Your task to perform on an android device: check out phone information Image 0: 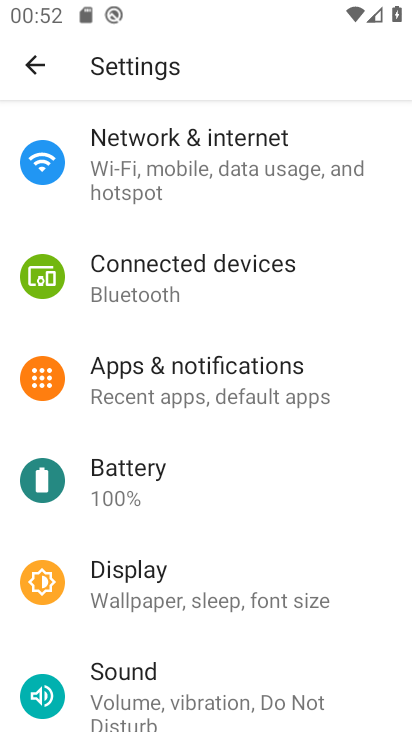
Step 0: press home button
Your task to perform on an android device: check out phone information Image 1: 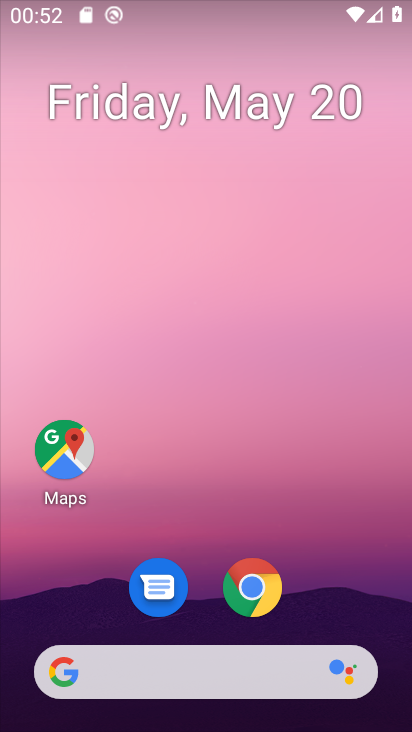
Step 1: drag from (346, 585) to (349, 105)
Your task to perform on an android device: check out phone information Image 2: 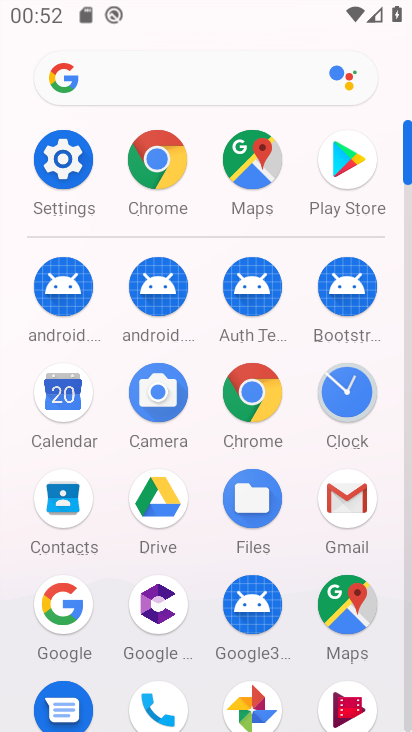
Step 2: drag from (376, 572) to (388, 302)
Your task to perform on an android device: check out phone information Image 3: 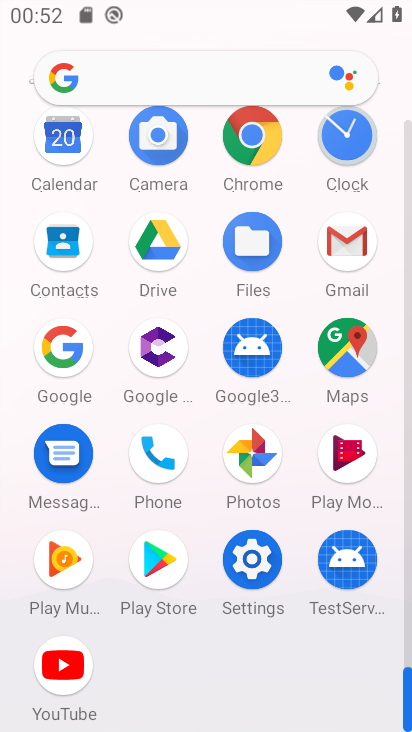
Step 3: click (163, 475)
Your task to perform on an android device: check out phone information Image 4: 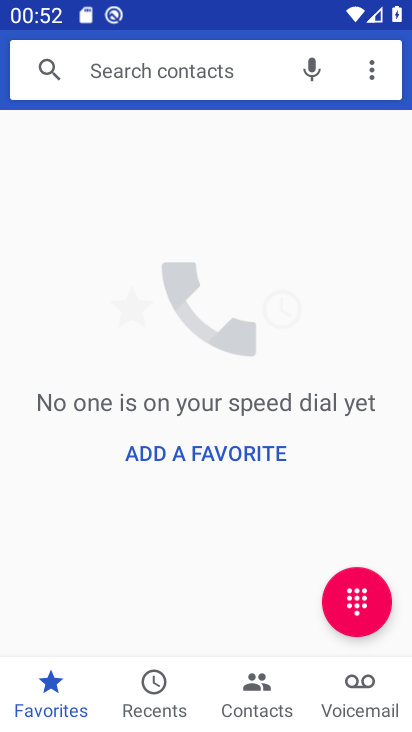
Step 4: click (155, 696)
Your task to perform on an android device: check out phone information Image 5: 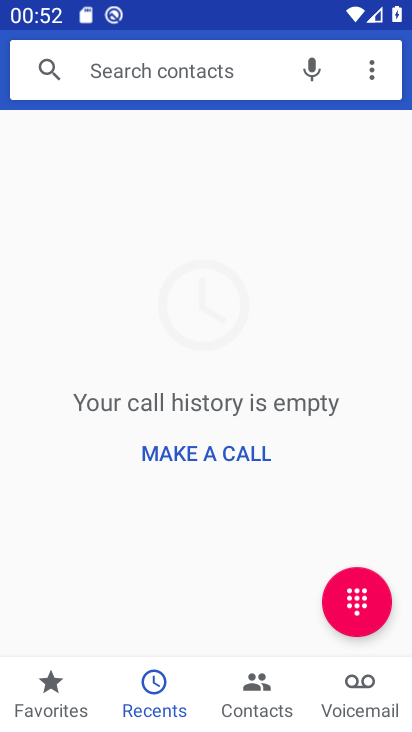
Step 5: task complete